Your task to perform on an android device: toggle airplane mode Image 0: 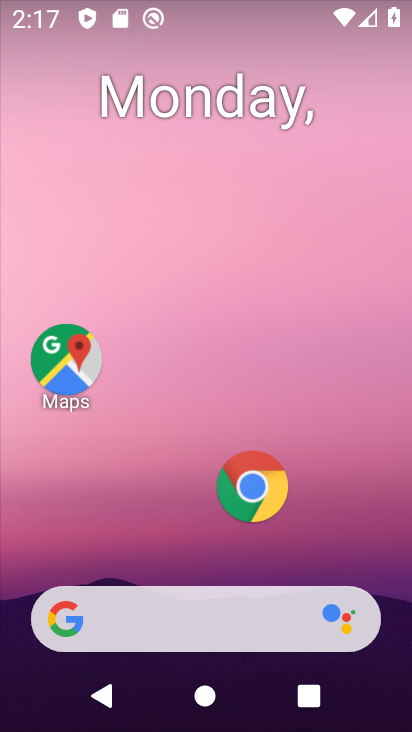
Step 0: drag from (161, 539) to (241, 91)
Your task to perform on an android device: toggle airplane mode Image 1: 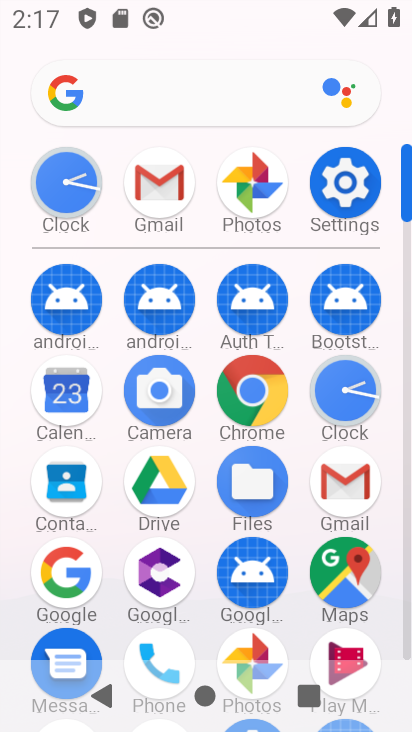
Step 1: click (338, 173)
Your task to perform on an android device: toggle airplane mode Image 2: 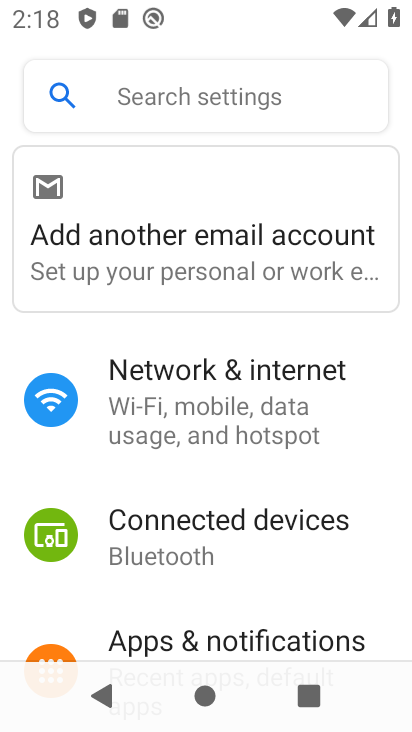
Step 2: click (161, 434)
Your task to perform on an android device: toggle airplane mode Image 3: 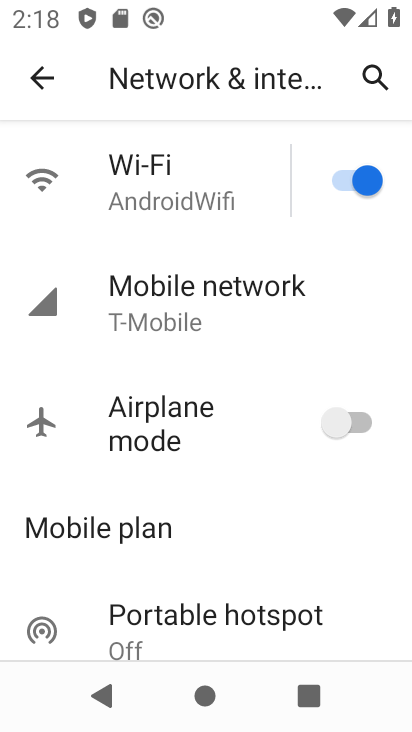
Step 3: click (365, 426)
Your task to perform on an android device: toggle airplane mode Image 4: 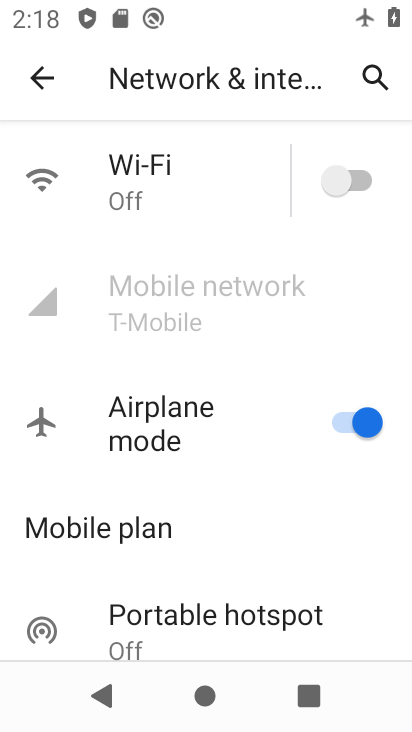
Step 4: task complete